Your task to perform on an android device: Go to wifi settings Image 0: 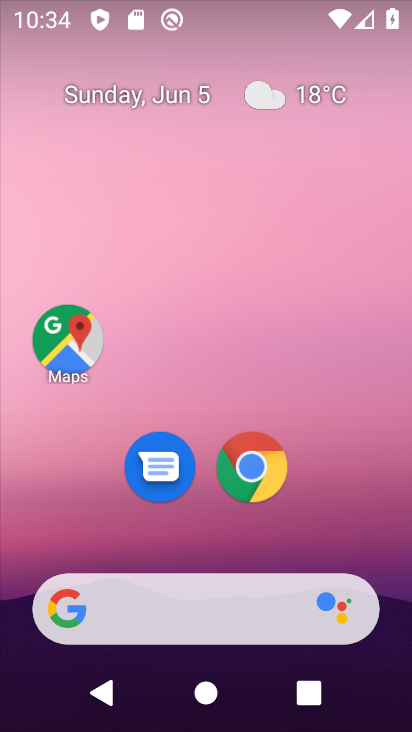
Step 0: drag from (219, 38) to (197, 492)
Your task to perform on an android device: Go to wifi settings Image 1: 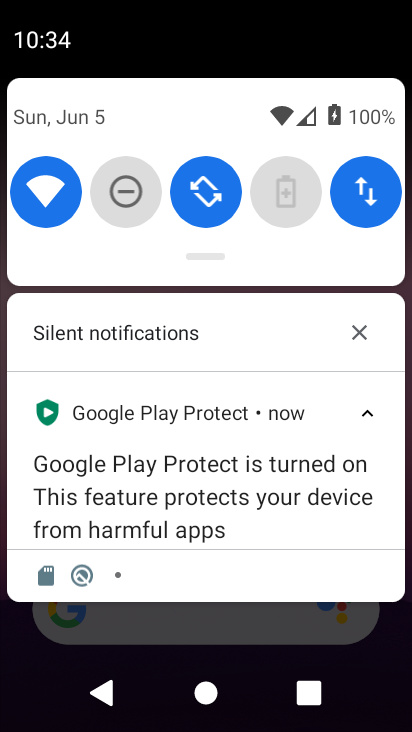
Step 1: click (50, 181)
Your task to perform on an android device: Go to wifi settings Image 2: 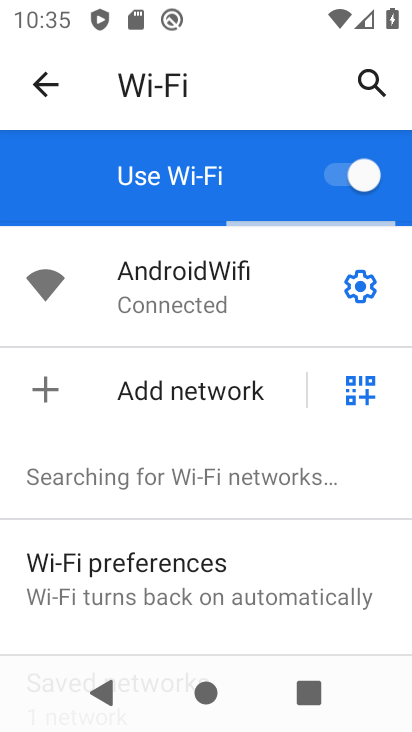
Step 2: task complete